Your task to perform on an android device: turn off picture-in-picture Image 0: 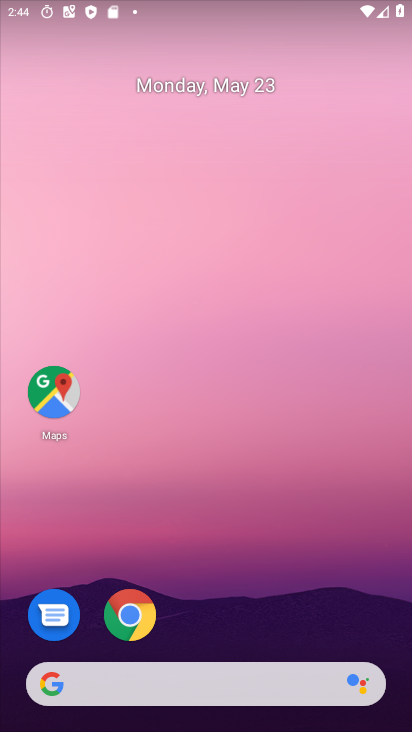
Step 0: click (128, 618)
Your task to perform on an android device: turn off picture-in-picture Image 1: 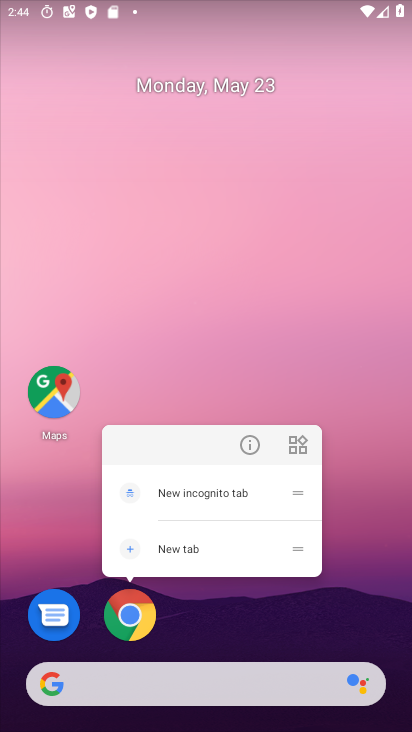
Step 1: click (251, 445)
Your task to perform on an android device: turn off picture-in-picture Image 2: 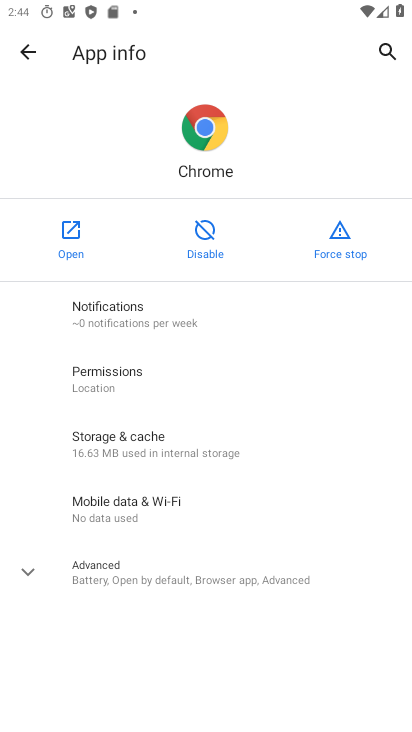
Step 2: click (27, 578)
Your task to perform on an android device: turn off picture-in-picture Image 3: 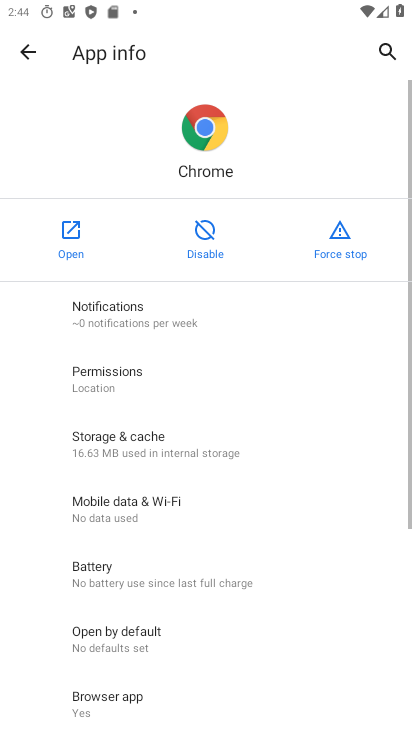
Step 3: drag from (151, 541) to (162, 159)
Your task to perform on an android device: turn off picture-in-picture Image 4: 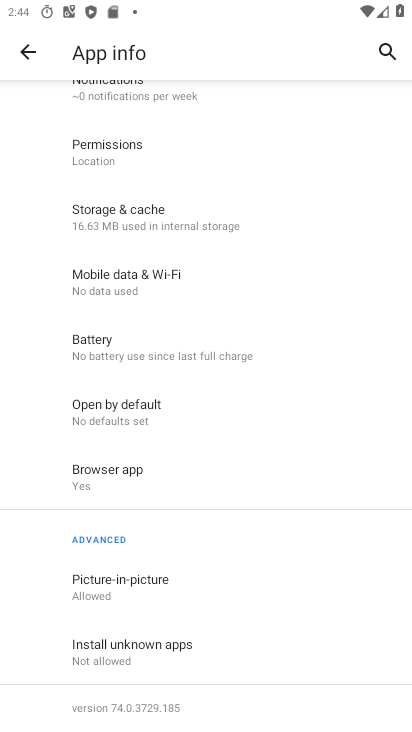
Step 4: click (106, 585)
Your task to perform on an android device: turn off picture-in-picture Image 5: 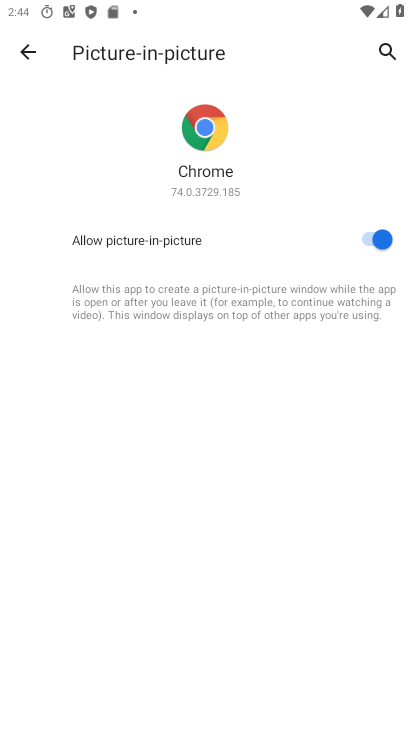
Step 5: click (385, 244)
Your task to perform on an android device: turn off picture-in-picture Image 6: 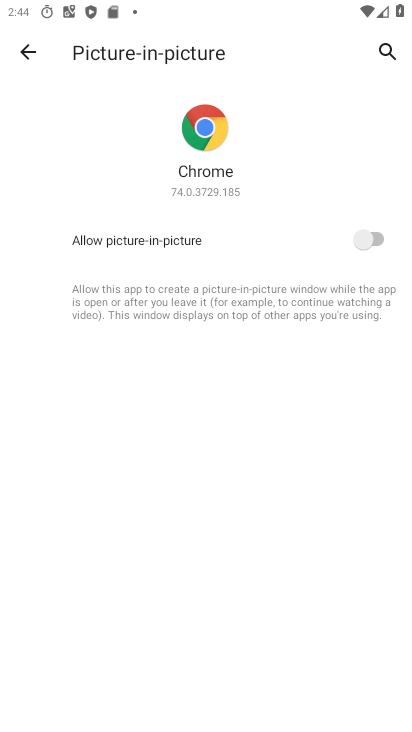
Step 6: task complete